Your task to perform on an android device: see sites visited before in the chrome app Image 0: 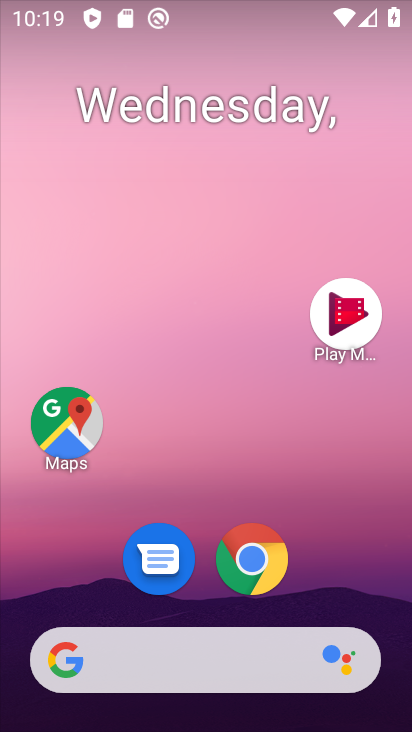
Step 0: click (255, 556)
Your task to perform on an android device: see sites visited before in the chrome app Image 1: 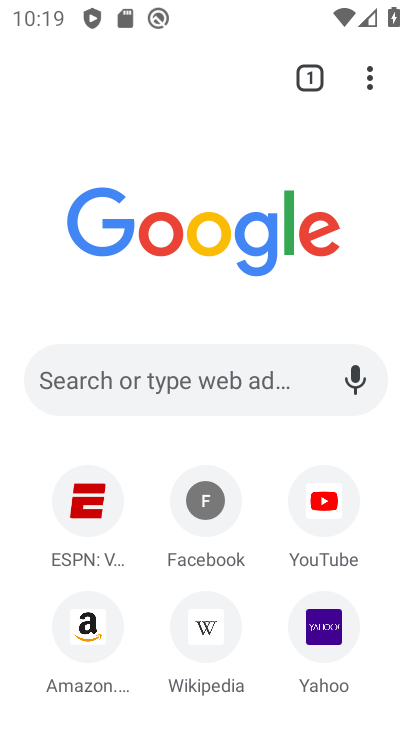
Step 1: click (365, 62)
Your task to perform on an android device: see sites visited before in the chrome app Image 2: 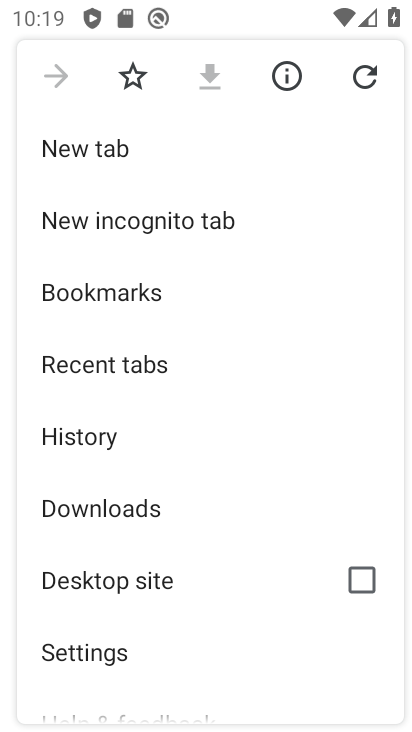
Step 2: click (87, 435)
Your task to perform on an android device: see sites visited before in the chrome app Image 3: 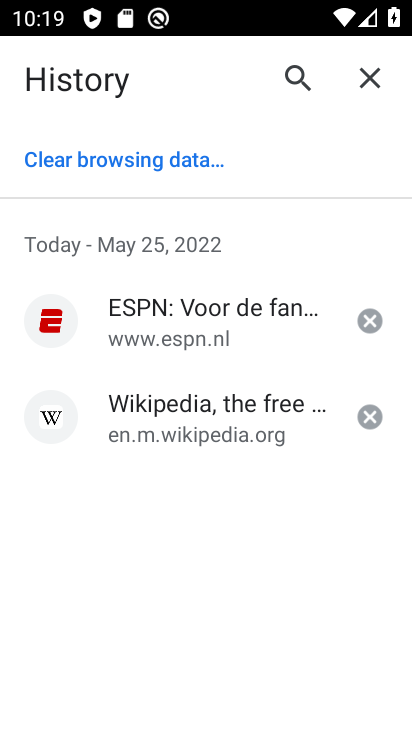
Step 3: task complete